Your task to perform on an android device: Go to Wikipedia Image 0: 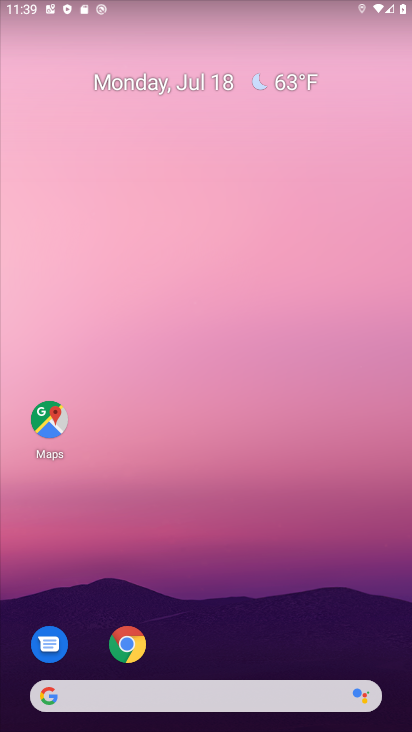
Step 0: click (130, 639)
Your task to perform on an android device: Go to Wikipedia Image 1: 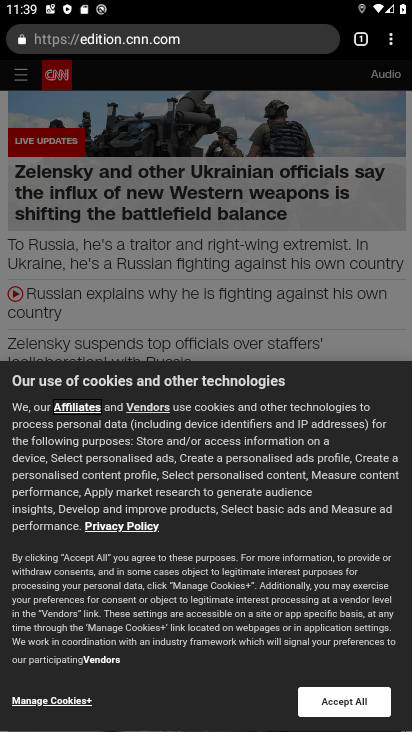
Step 1: click (392, 45)
Your task to perform on an android device: Go to Wikipedia Image 2: 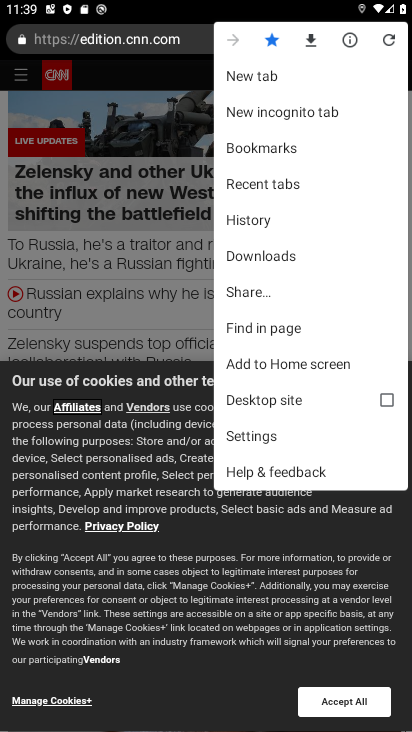
Step 2: click (253, 77)
Your task to perform on an android device: Go to Wikipedia Image 3: 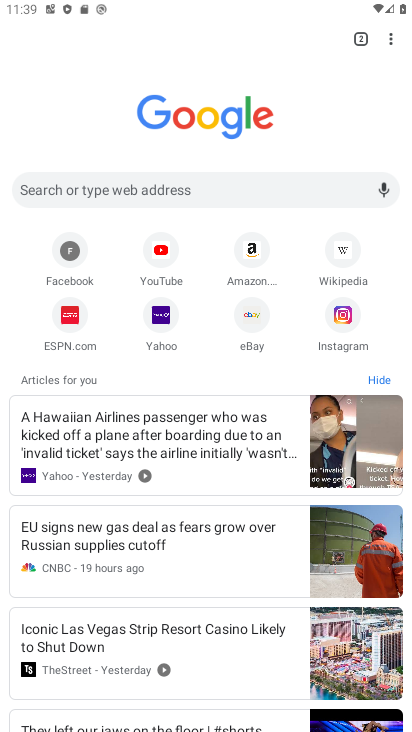
Step 3: click (340, 250)
Your task to perform on an android device: Go to Wikipedia Image 4: 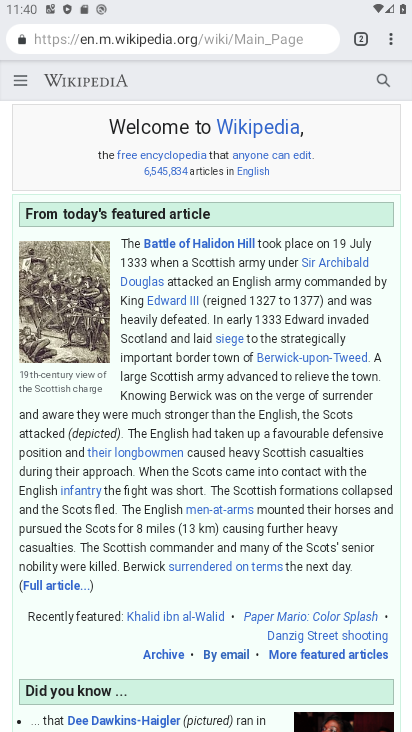
Step 4: task complete